Your task to perform on an android device: all mails in gmail Image 0: 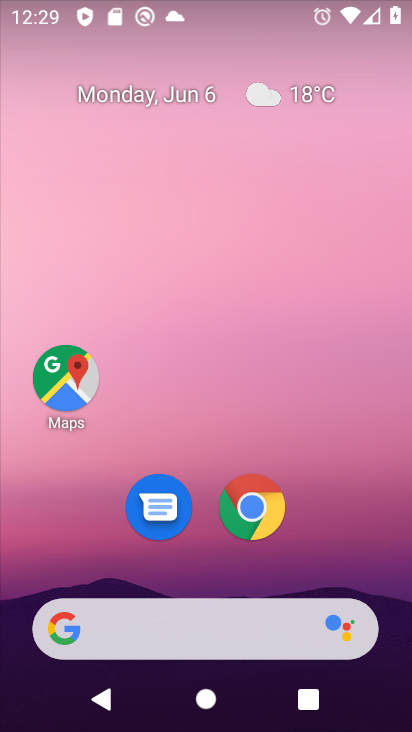
Step 0: drag from (295, 34) to (338, 11)
Your task to perform on an android device: all mails in gmail Image 1: 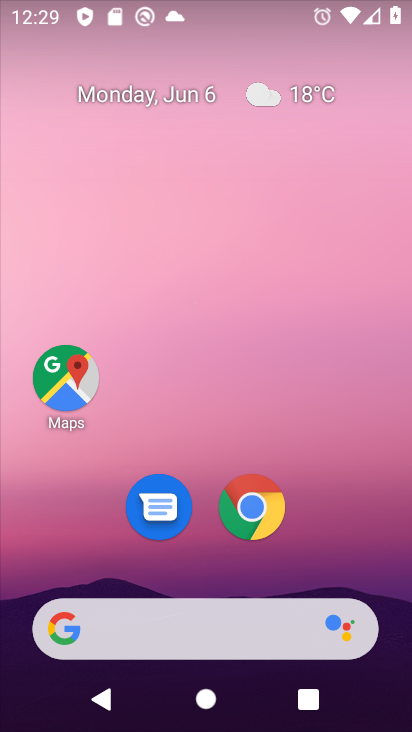
Step 1: drag from (216, 581) to (312, 0)
Your task to perform on an android device: all mails in gmail Image 2: 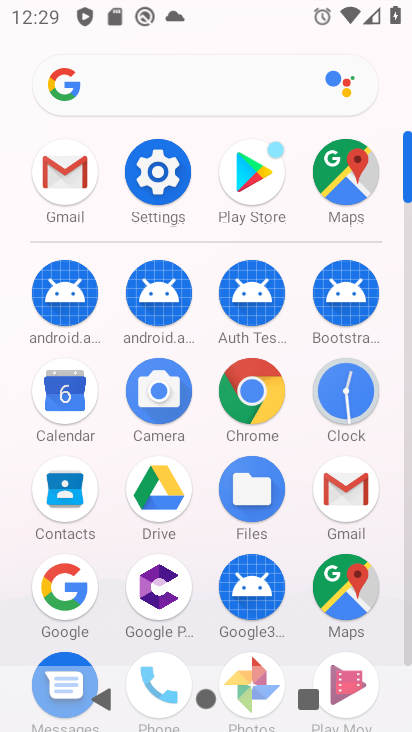
Step 2: click (341, 503)
Your task to perform on an android device: all mails in gmail Image 3: 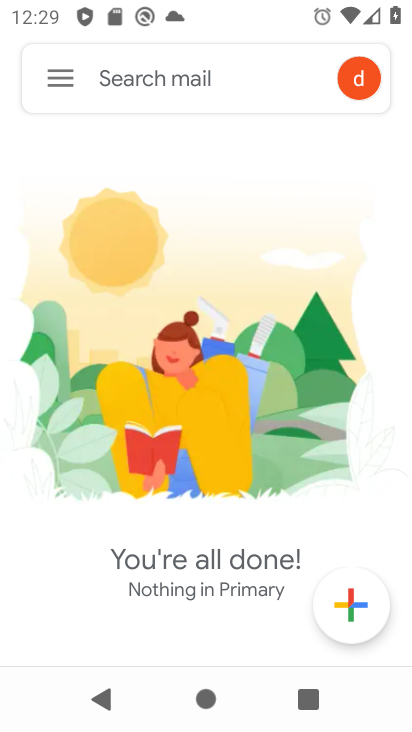
Step 3: click (62, 66)
Your task to perform on an android device: all mails in gmail Image 4: 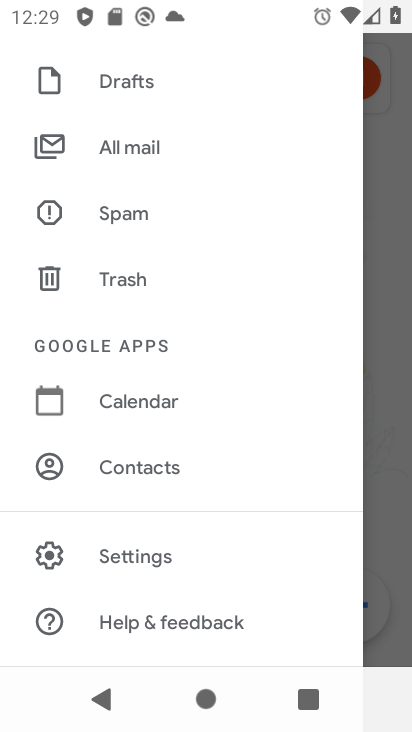
Step 4: click (161, 154)
Your task to perform on an android device: all mails in gmail Image 5: 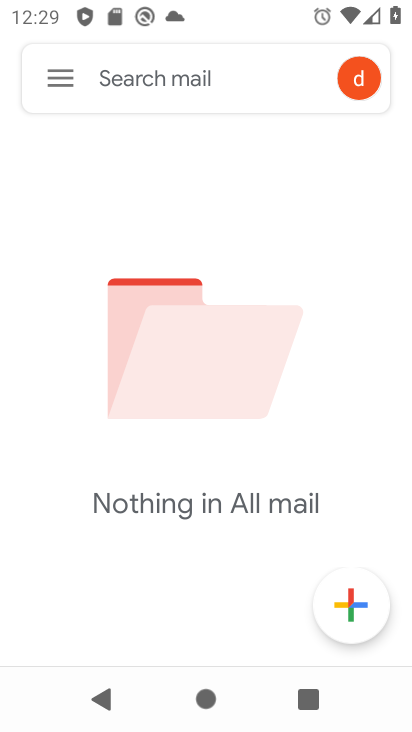
Step 5: task complete